Your task to perform on an android device: turn on the 24-hour format for clock Image 0: 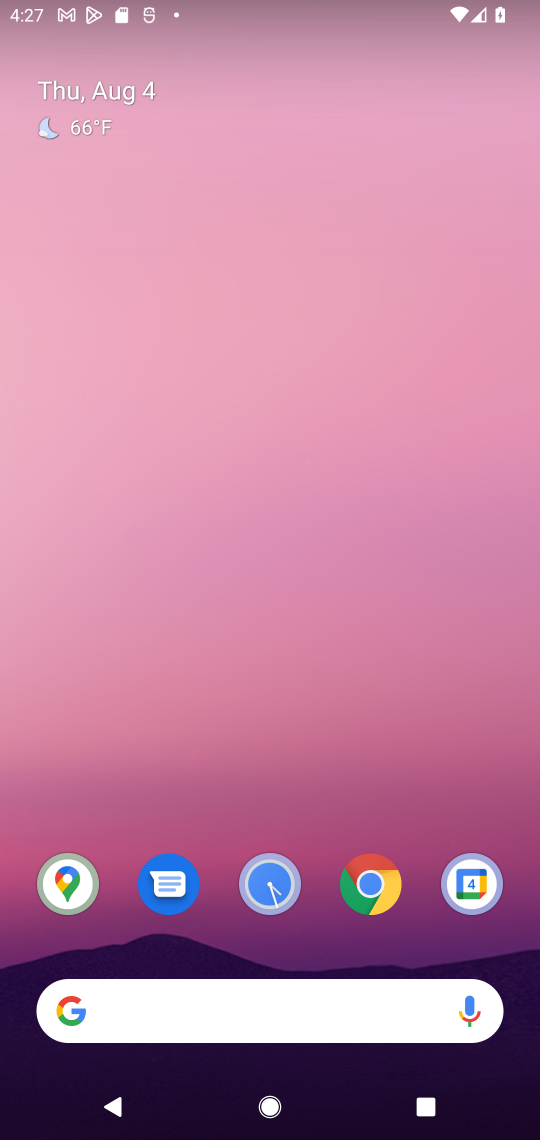
Step 0: click (278, 917)
Your task to perform on an android device: turn on the 24-hour format for clock Image 1: 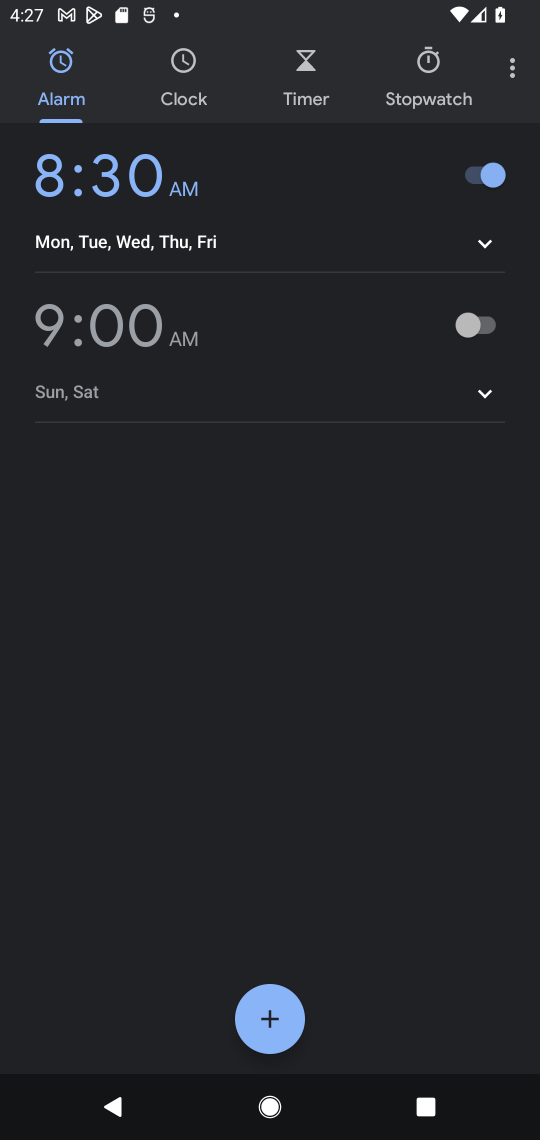
Step 1: click (514, 60)
Your task to perform on an android device: turn on the 24-hour format for clock Image 2: 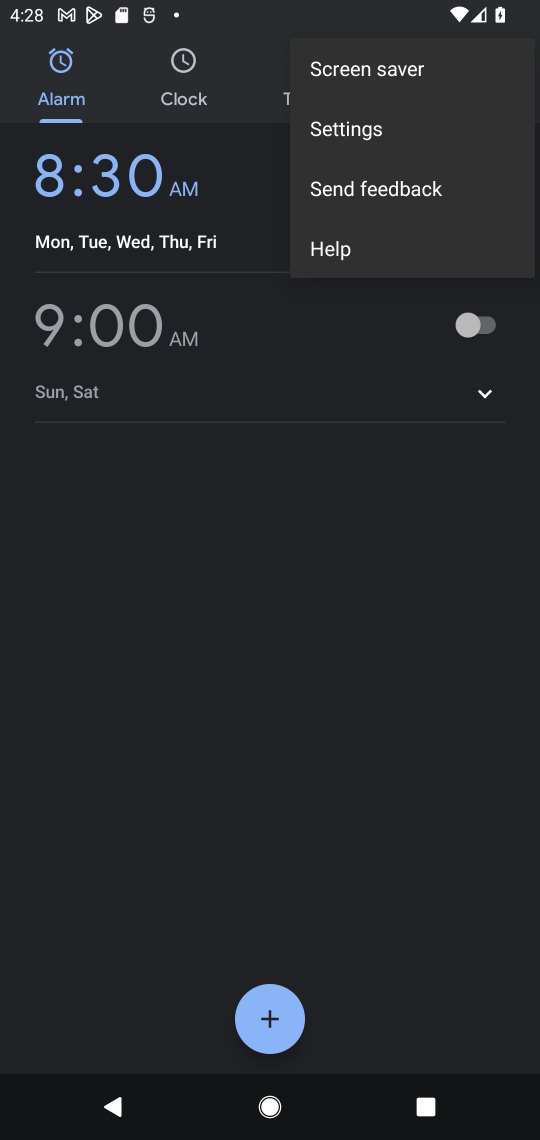
Step 2: click (336, 110)
Your task to perform on an android device: turn on the 24-hour format for clock Image 3: 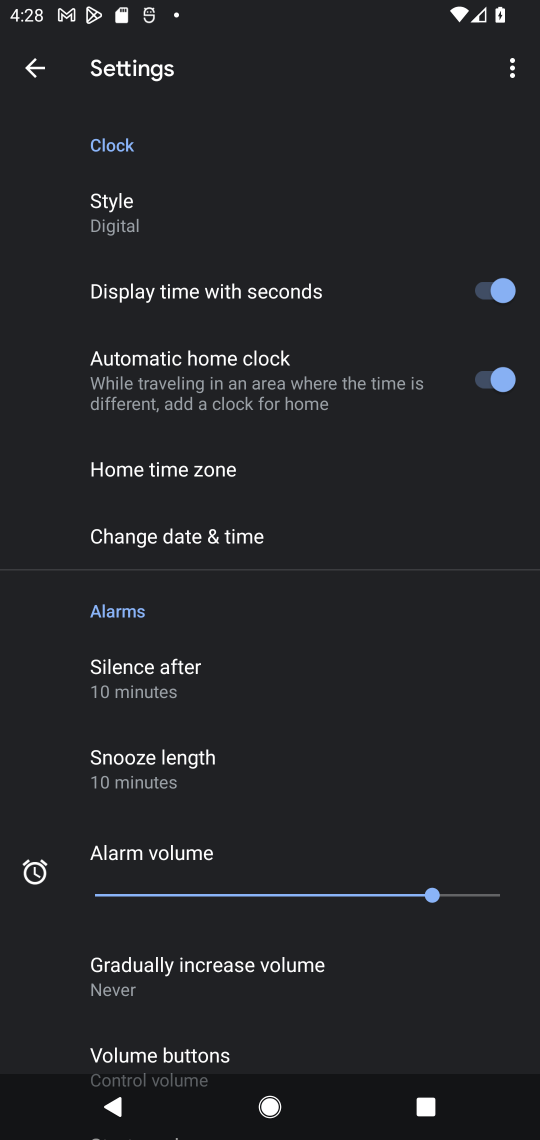
Step 3: task complete